Your task to perform on an android device: open app "Pluto TV - Live TV and Movies" (install if not already installed) Image 0: 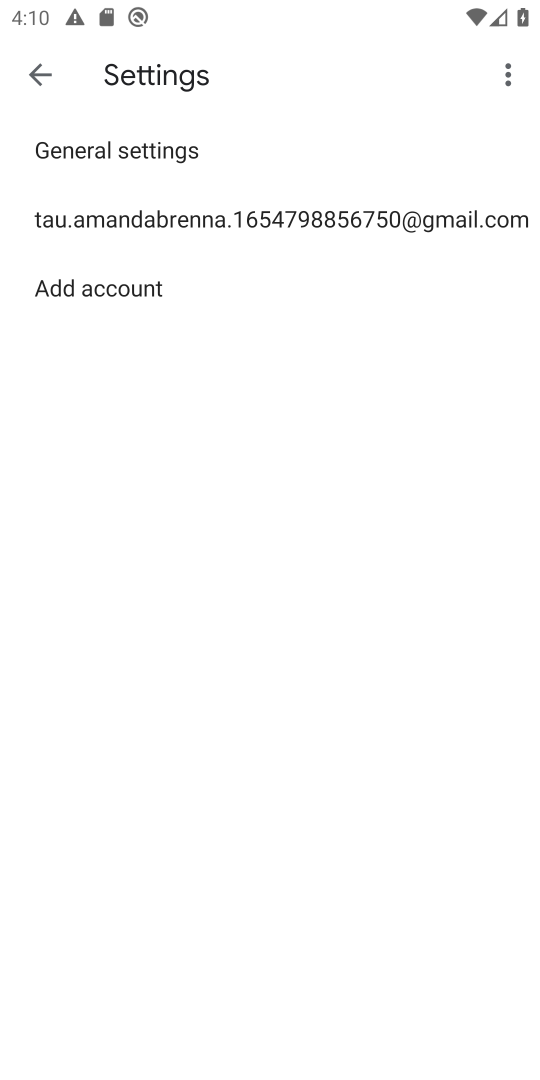
Step 0: press home button
Your task to perform on an android device: open app "Pluto TV - Live TV and Movies" (install if not already installed) Image 1: 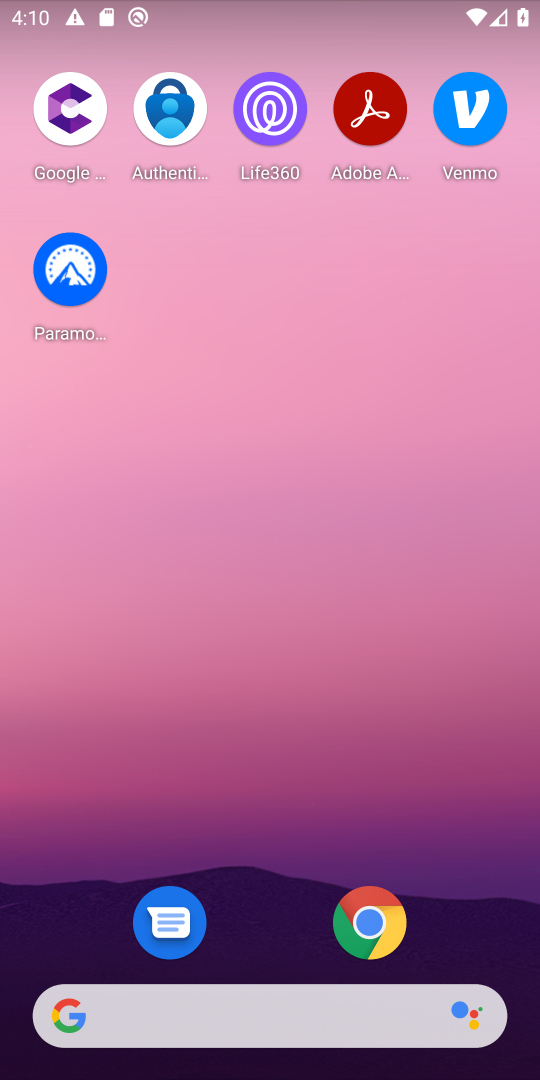
Step 1: drag from (263, 951) to (253, 107)
Your task to perform on an android device: open app "Pluto TV - Live TV and Movies" (install if not already installed) Image 2: 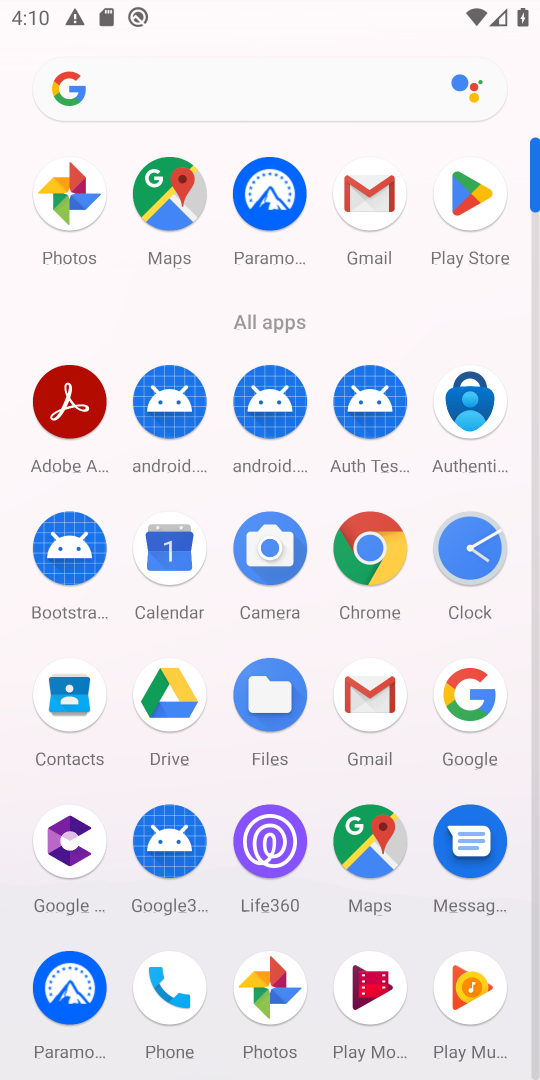
Step 2: click (471, 201)
Your task to perform on an android device: open app "Pluto TV - Live TV and Movies" (install if not already installed) Image 3: 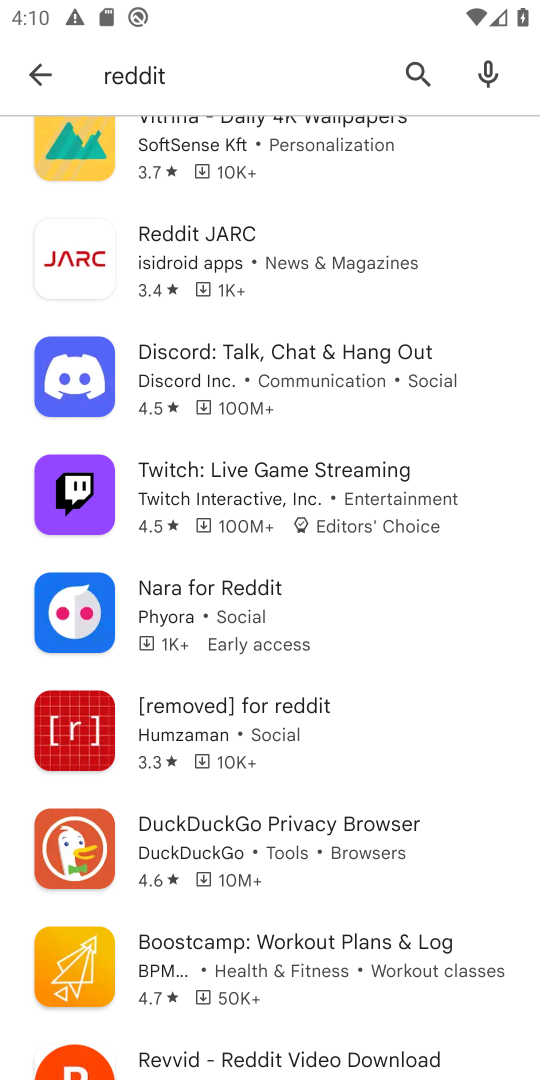
Step 3: click (414, 59)
Your task to perform on an android device: open app "Pluto TV - Live TV and Movies" (install if not already installed) Image 4: 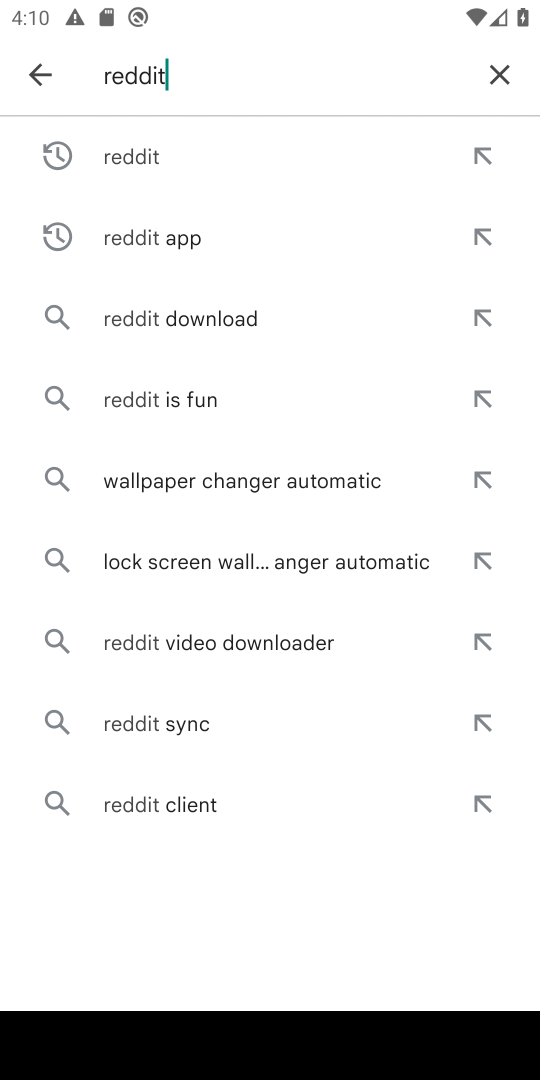
Step 4: click (503, 72)
Your task to perform on an android device: open app "Pluto TV - Live TV and Movies" (install if not already installed) Image 5: 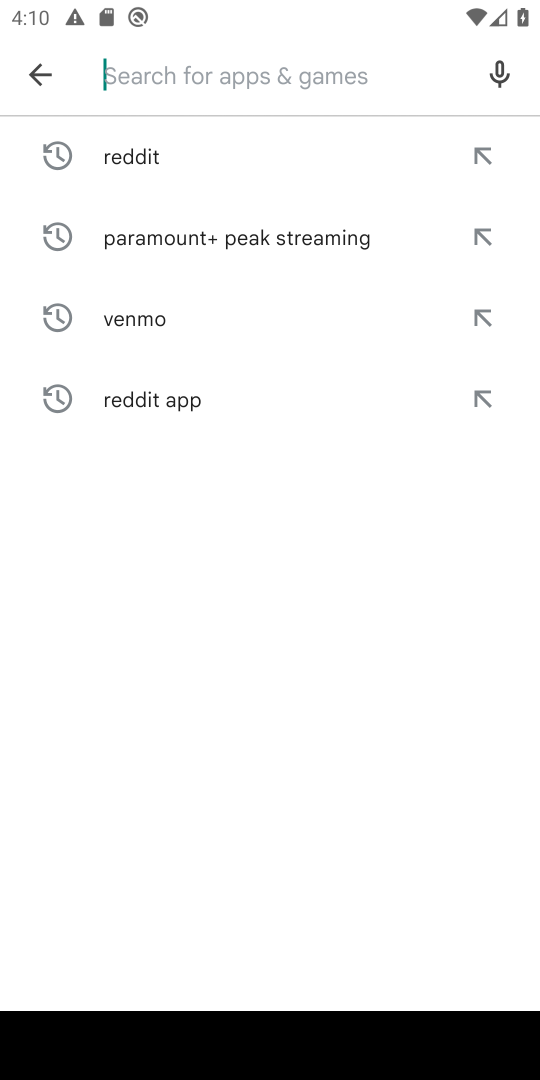
Step 5: type "Pluto TV - Live TV and Movies"
Your task to perform on an android device: open app "Pluto TV - Live TV and Movies" (install if not already installed) Image 6: 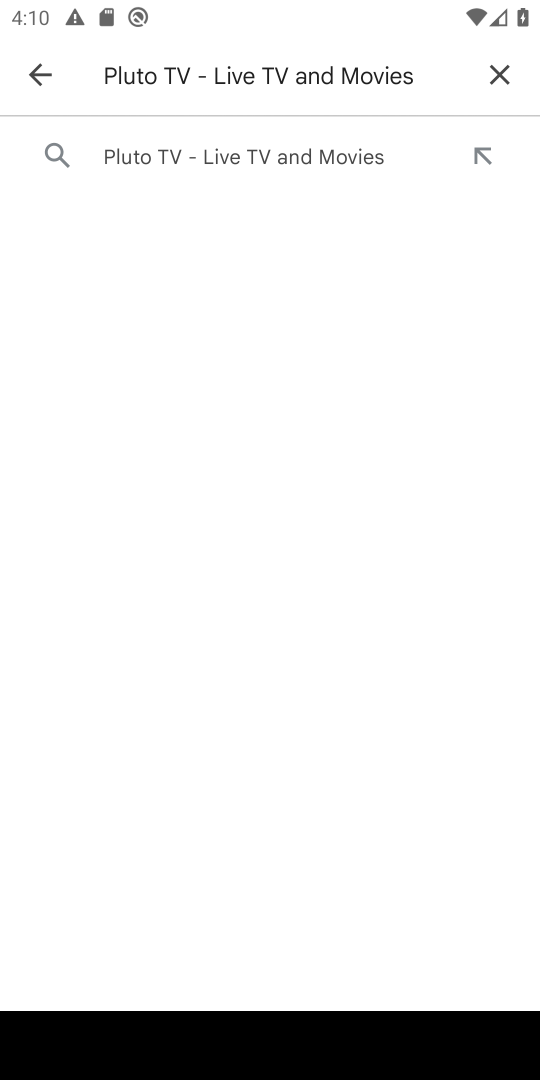
Step 6: click (311, 173)
Your task to perform on an android device: open app "Pluto TV - Live TV and Movies" (install if not already installed) Image 7: 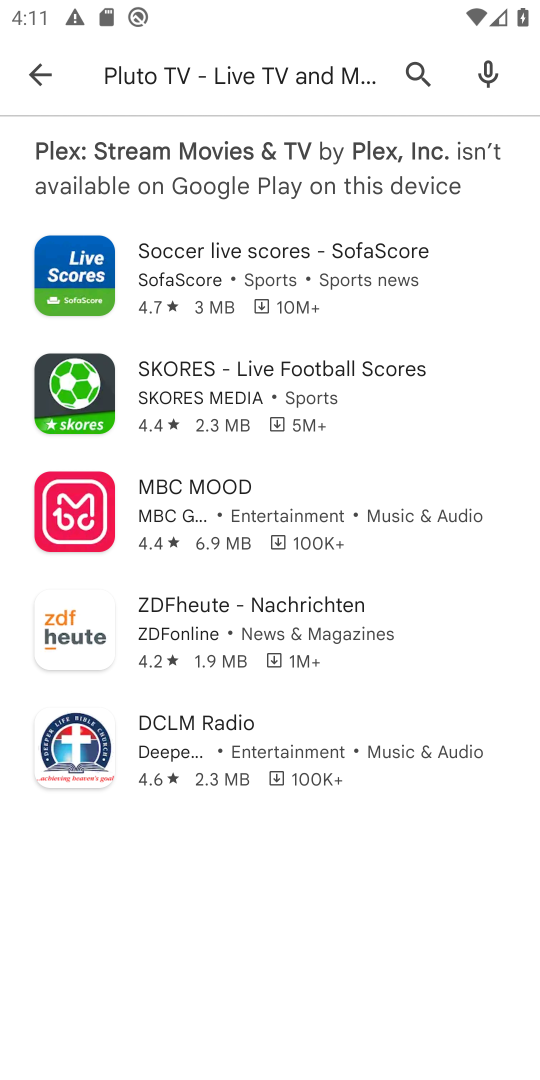
Step 7: task complete